Your task to perform on an android device: change the clock display to digital Image 0: 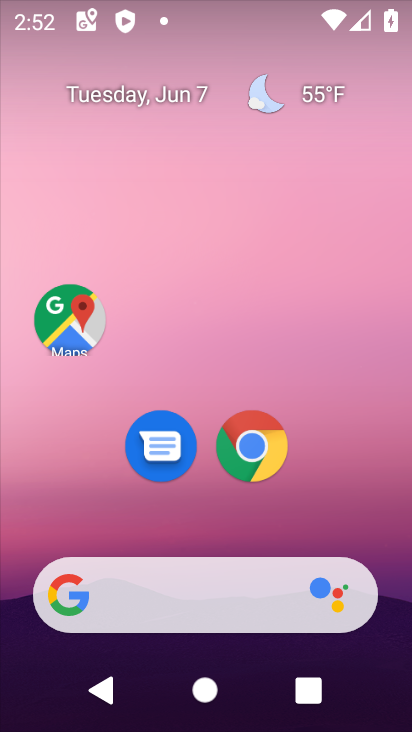
Step 0: drag from (222, 499) to (367, 21)
Your task to perform on an android device: change the clock display to digital Image 1: 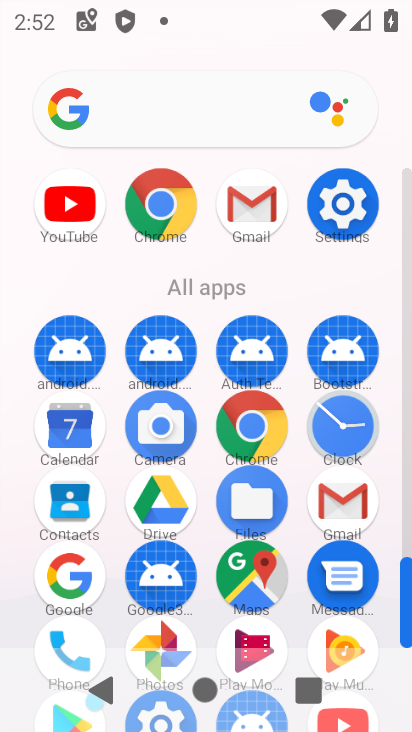
Step 1: click (327, 428)
Your task to perform on an android device: change the clock display to digital Image 2: 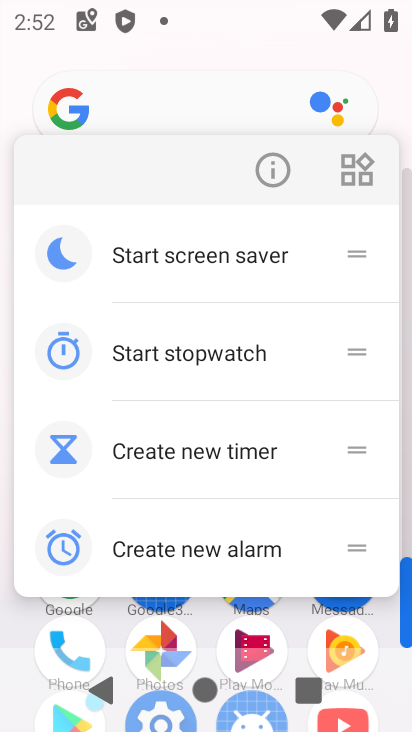
Step 2: drag from (241, 635) to (253, 554)
Your task to perform on an android device: change the clock display to digital Image 3: 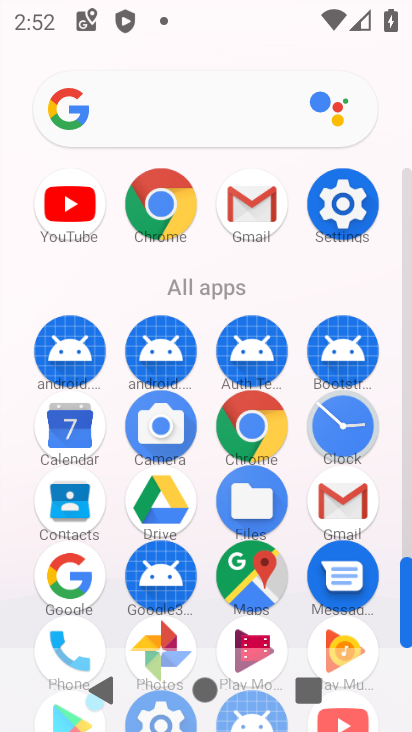
Step 3: click (336, 414)
Your task to perform on an android device: change the clock display to digital Image 4: 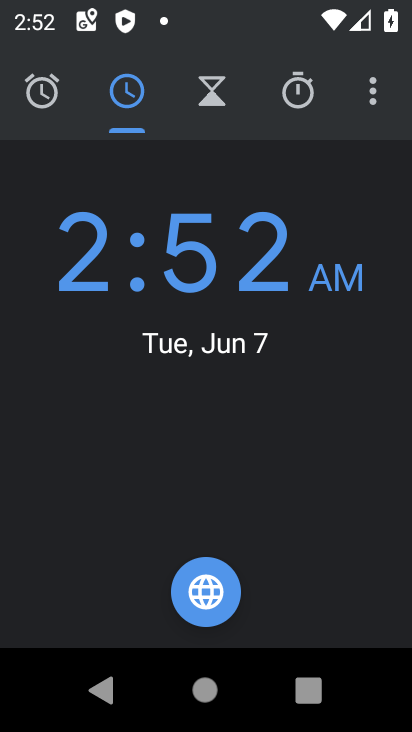
Step 4: press home button
Your task to perform on an android device: change the clock display to digital Image 5: 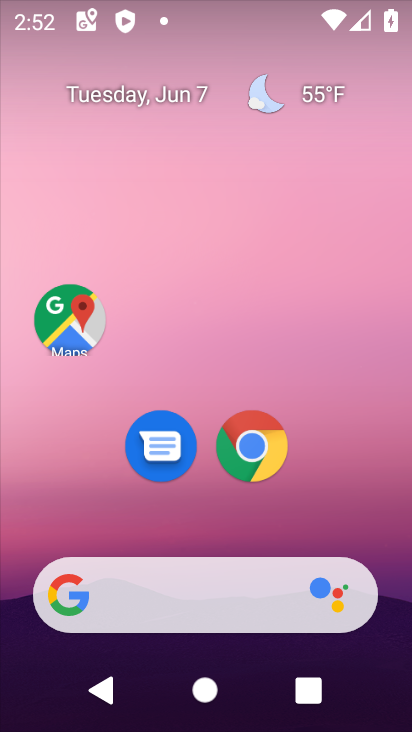
Step 5: drag from (280, 359) to (155, 29)
Your task to perform on an android device: change the clock display to digital Image 6: 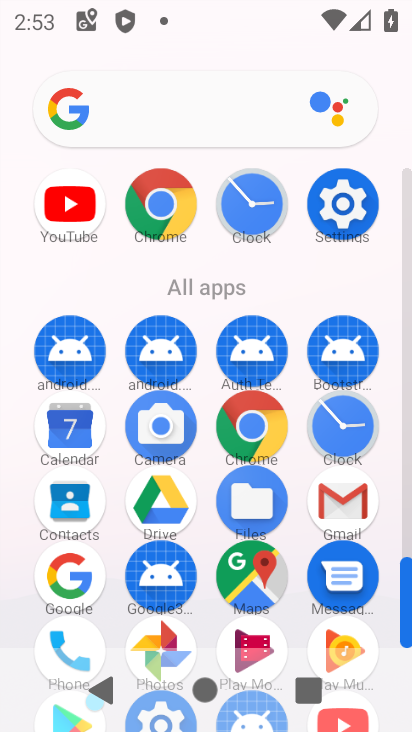
Step 6: click (260, 217)
Your task to perform on an android device: change the clock display to digital Image 7: 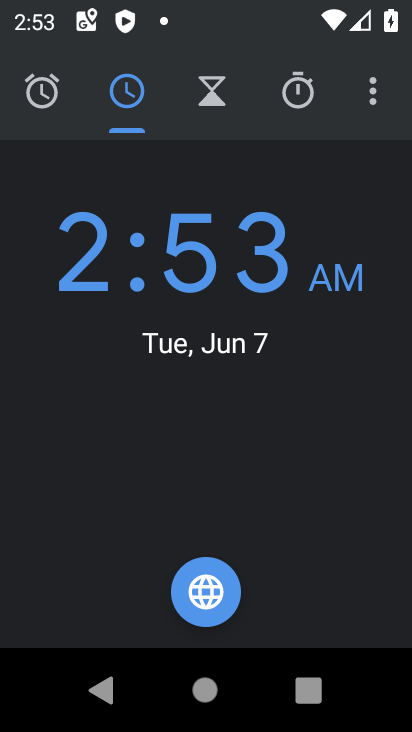
Step 7: click (379, 98)
Your task to perform on an android device: change the clock display to digital Image 8: 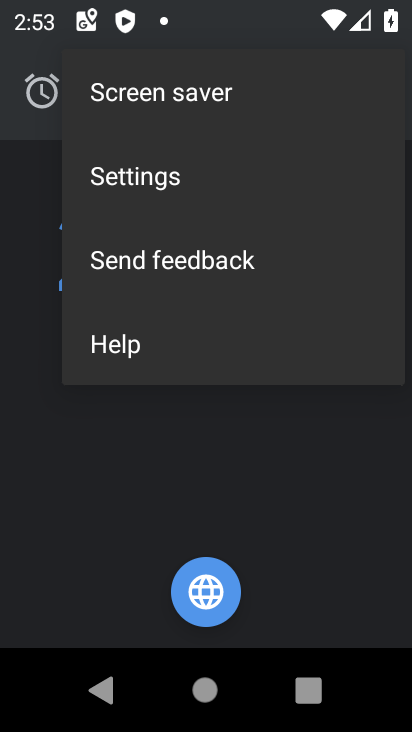
Step 8: click (121, 190)
Your task to perform on an android device: change the clock display to digital Image 9: 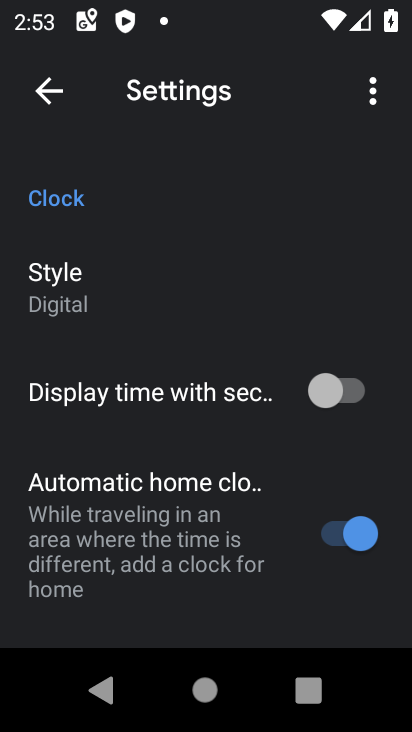
Step 9: task complete